Your task to perform on an android device: Open accessibility settings Image 0: 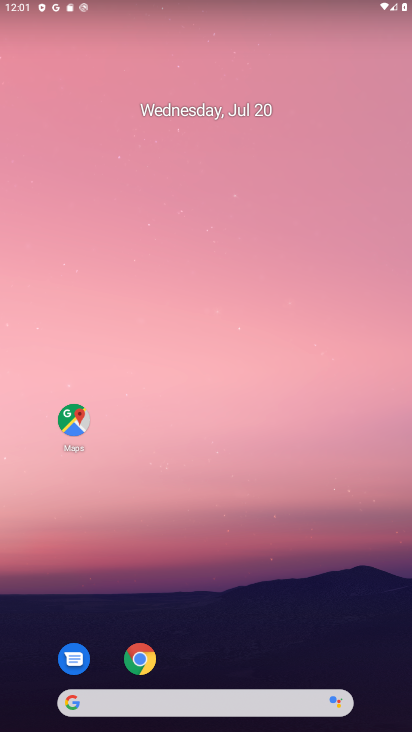
Step 0: press home button
Your task to perform on an android device: Open accessibility settings Image 1: 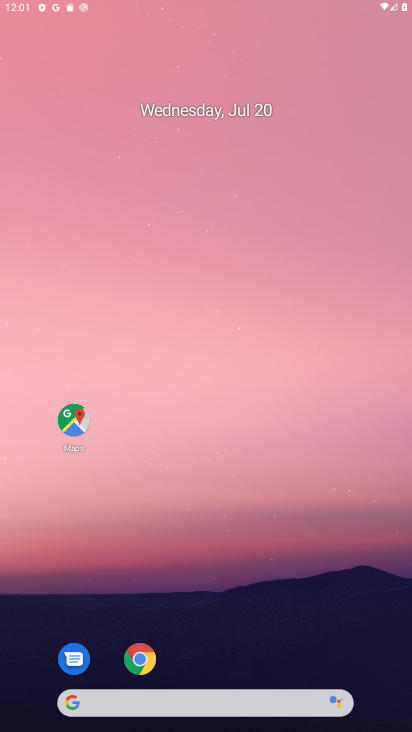
Step 1: drag from (204, 672) to (213, 0)
Your task to perform on an android device: Open accessibility settings Image 2: 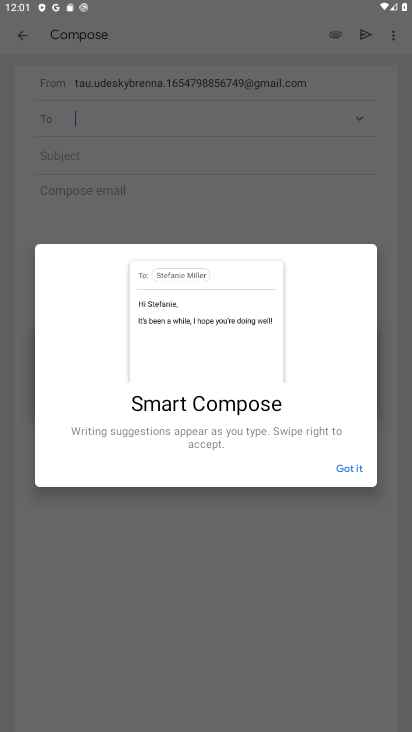
Step 2: press home button
Your task to perform on an android device: Open accessibility settings Image 3: 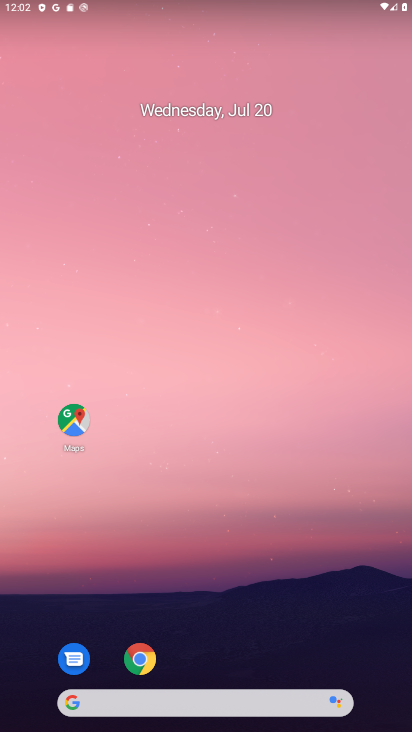
Step 3: drag from (217, 654) to (236, 0)
Your task to perform on an android device: Open accessibility settings Image 4: 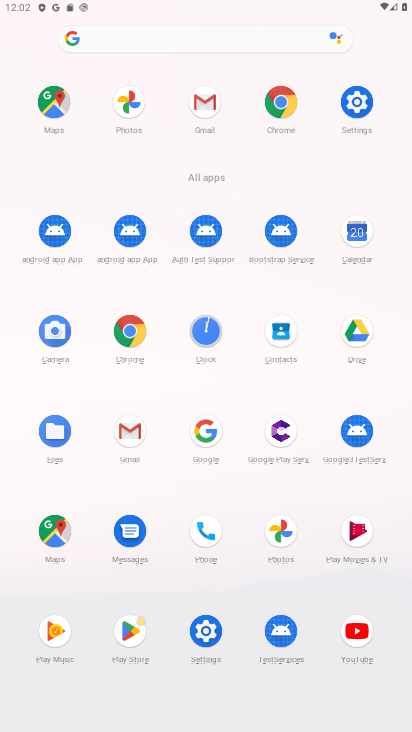
Step 4: click (354, 95)
Your task to perform on an android device: Open accessibility settings Image 5: 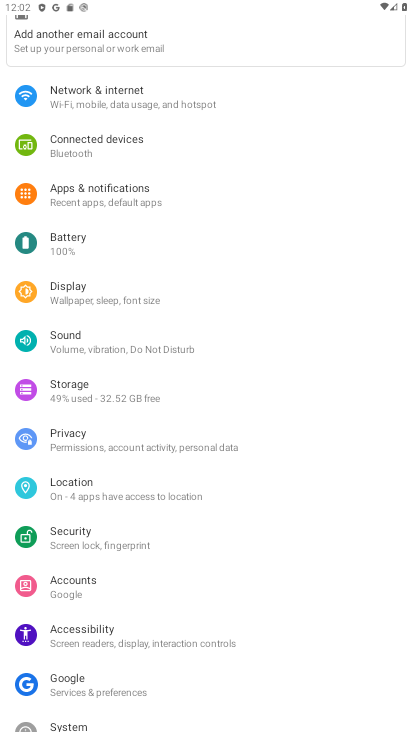
Step 5: click (129, 623)
Your task to perform on an android device: Open accessibility settings Image 6: 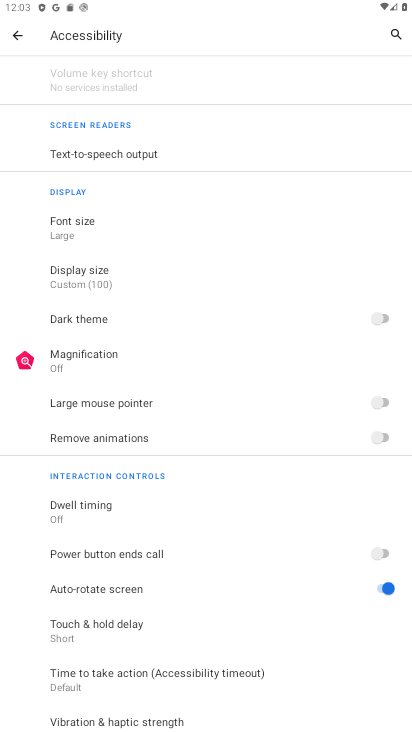
Step 6: task complete